Your task to perform on an android device: clear history in the chrome app Image 0: 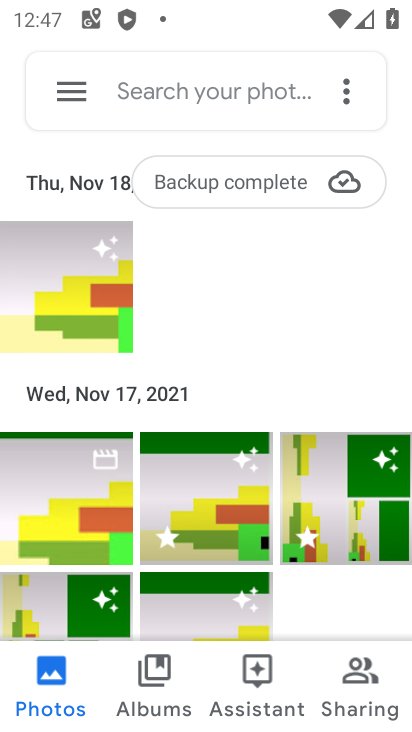
Step 0: press home button
Your task to perform on an android device: clear history in the chrome app Image 1: 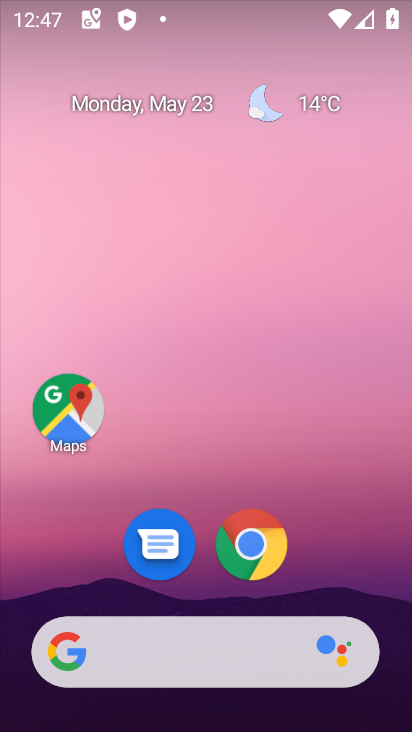
Step 1: click (258, 540)
Your task to perform on an android device: clear history in the chrome app Image 2: 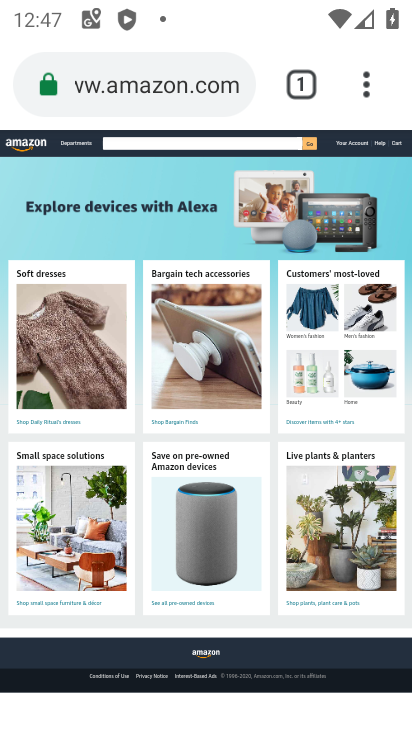
Step 2: drag from (375, 71) to (100, 487)
Your task to perform on an android device: clear history in the chrome app Image 3: 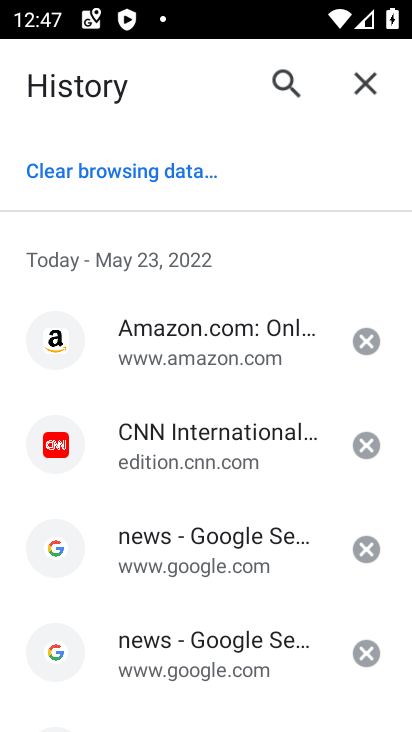
Step 3: click (121, 173)
Your task to perform on an android device: clear history in the chrome app Image 4: 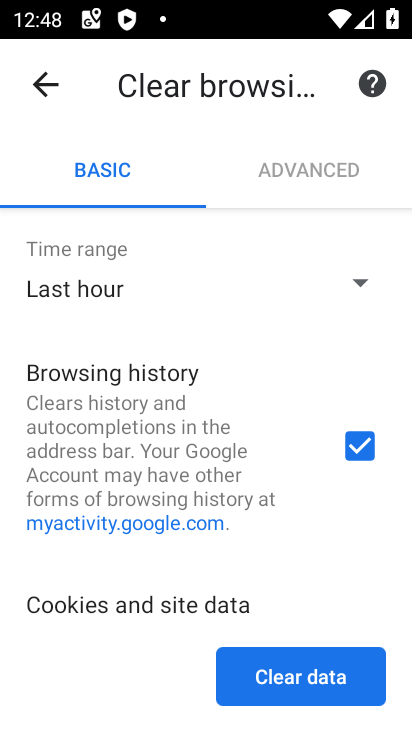
Step 4: click (220, 274)
Your task to perform on an android device: clear history in the chrome app Image 5: 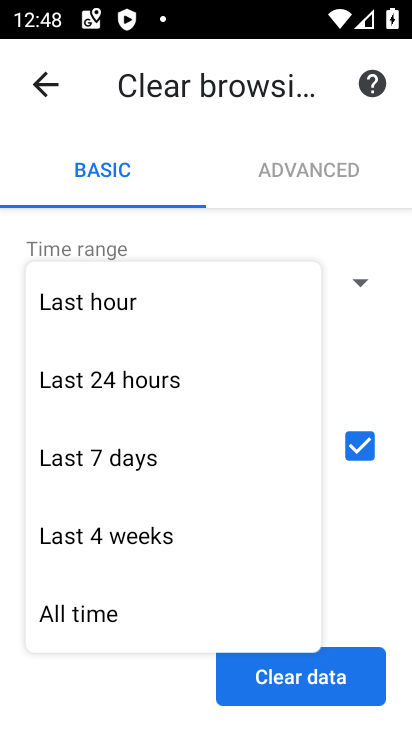
Step 5: click (97, 620)
Your task to perform on an android device: clear history in the chrome app Image 6: 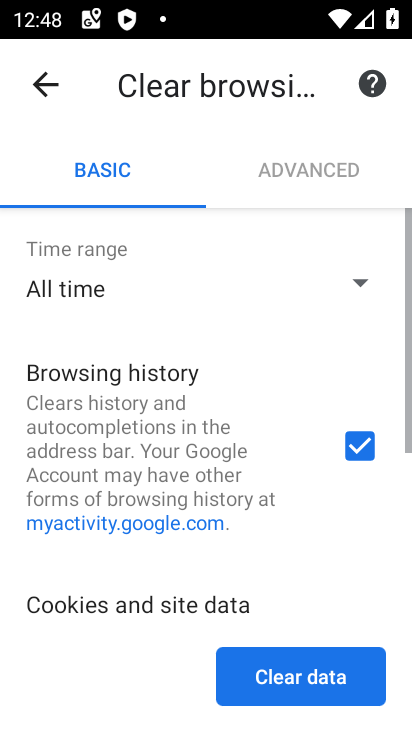
Step 6: click (323, 693)
Your task to perform on an android device: clear history in the chrome app Image 7: 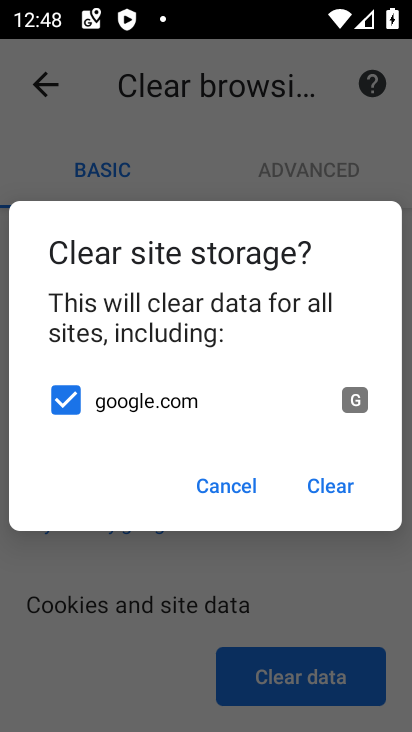
Step 7: click (339, 486)
Your task to perform on an android device: clear history in the chrome app Image 8: 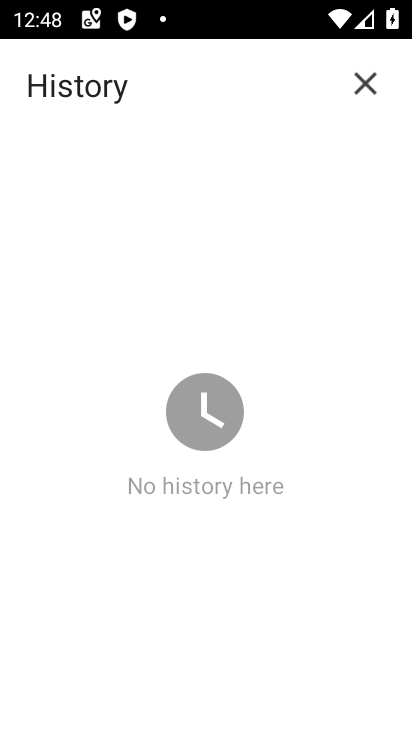
Step 8: task complete